Your task to perform on an android device: See recent photos Image 0: 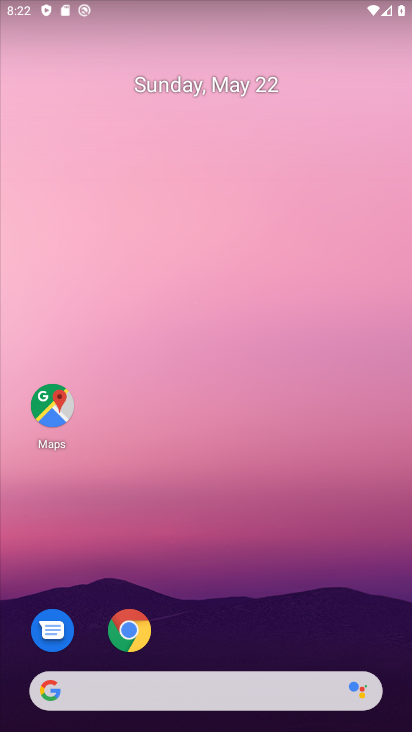
Step 0: drag from (279, 620) to (283, 85)
Your task to perform on an android device: See recent photos Image 1: 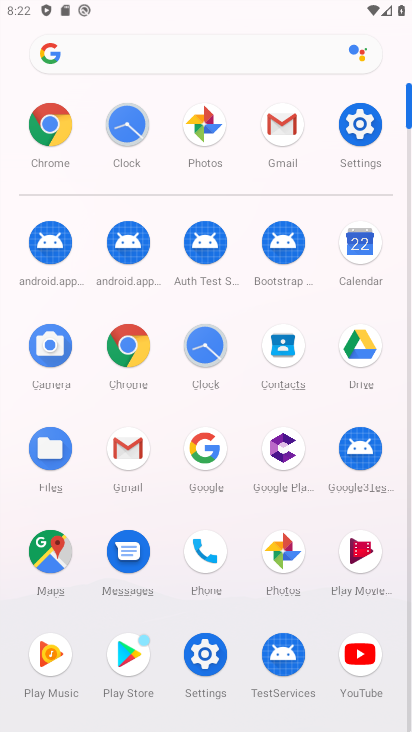
Step 1: click (196, 137)
Your task to perform on an android device: See recent photos Image 2: 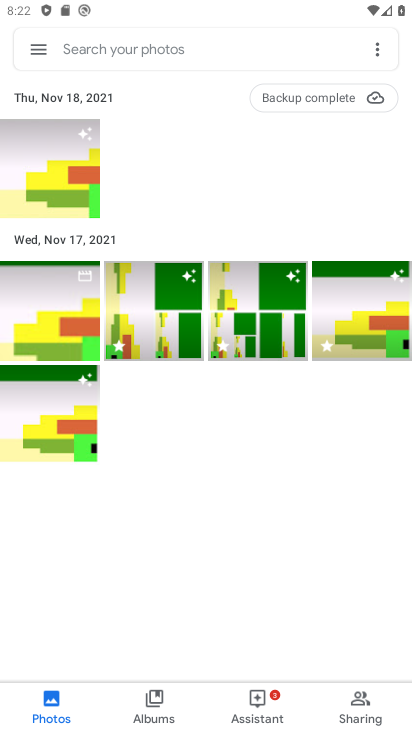
Step 2: click (378, 47)
Your task to perform on an android device: See recent photos Image 3: 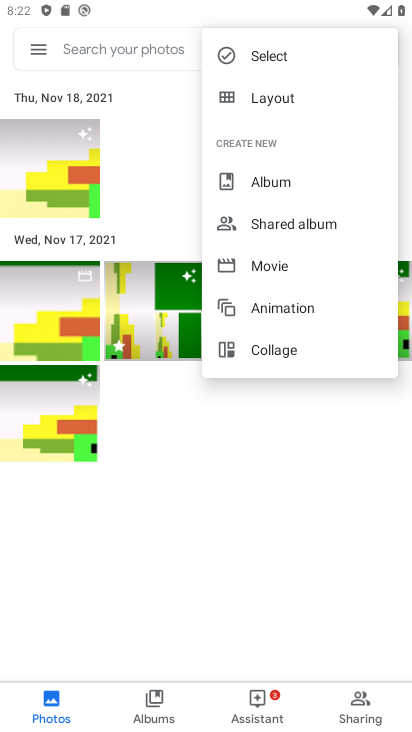
Step 3: click (204, 453)
Your task to perform on an android device: See recent photos Image 4: 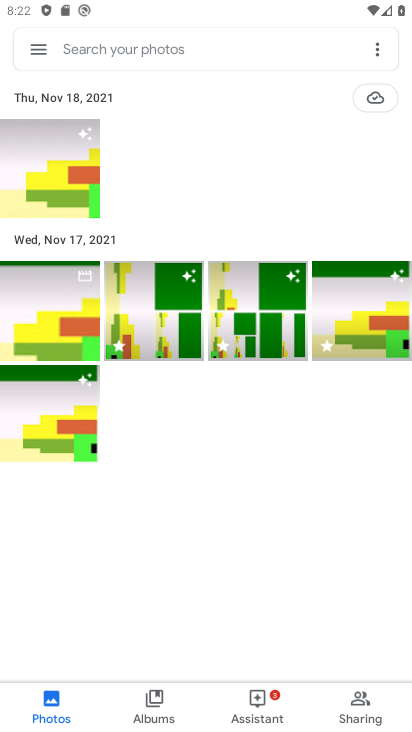
Step 4: click (33, 39)
Your task to perform on an android device: See recent photos Image 5: 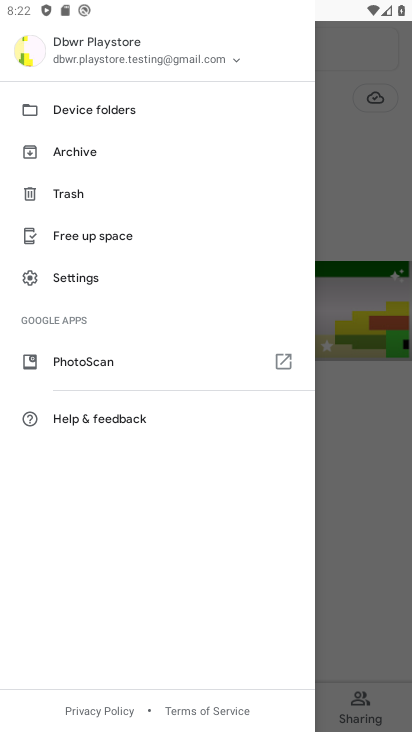
Step 5: click (75, 146)
Your task to perform on an android device: See recent photos Image 6: 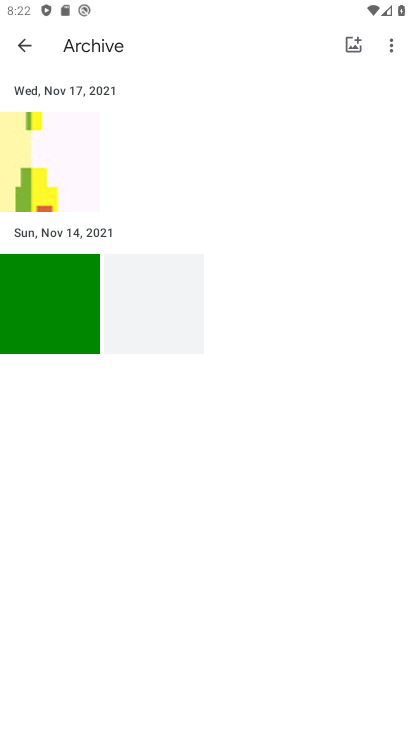
Step 6: task complete